Your task to perform on an android device: refresh tabs in the chrome app Image 0: 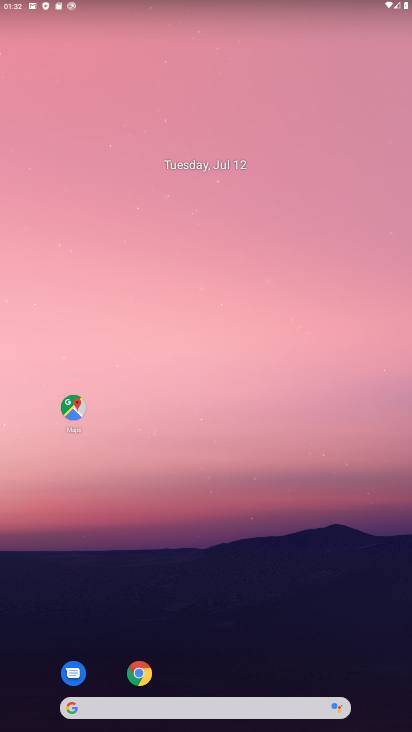
Step 0: click (152, 669)
Your task to perform on an android device: refresh tabs in the chrome app Image 1: 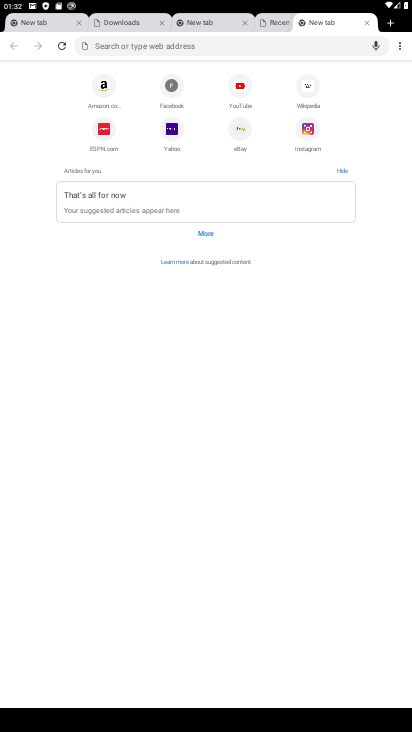
Step 1: click (401, 45)
Your task to perform on an android device: refresh tabs in the chrome app Image 2: 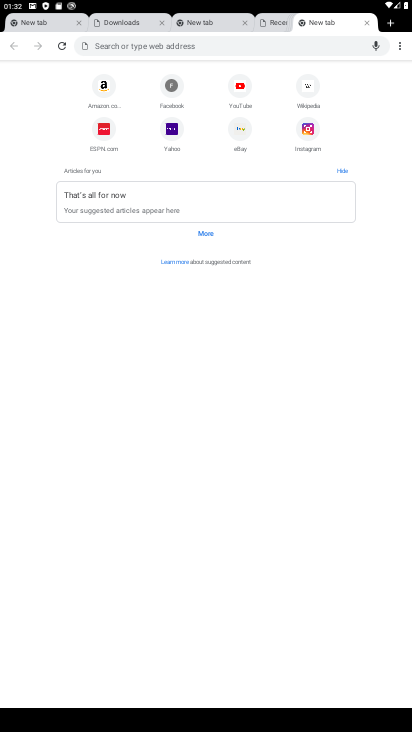
Step 2: click (61, 39)
Your task to perform on an android device: refresh tabs in the chrome app Image 3: 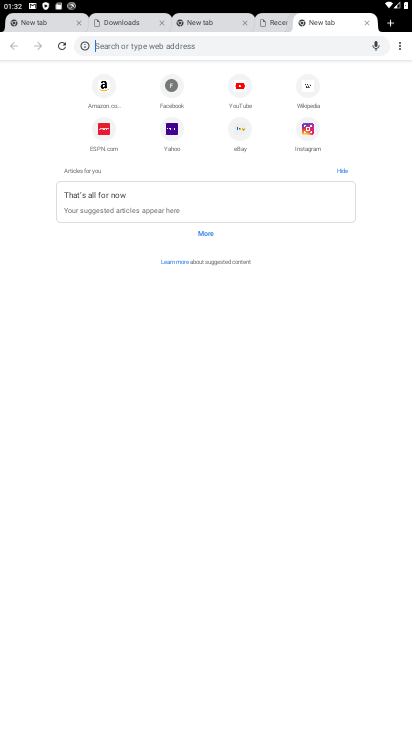
Step 3: click (60, 44)
Your task to perform on an android device: refresh tabs in the chrome app Image 4: 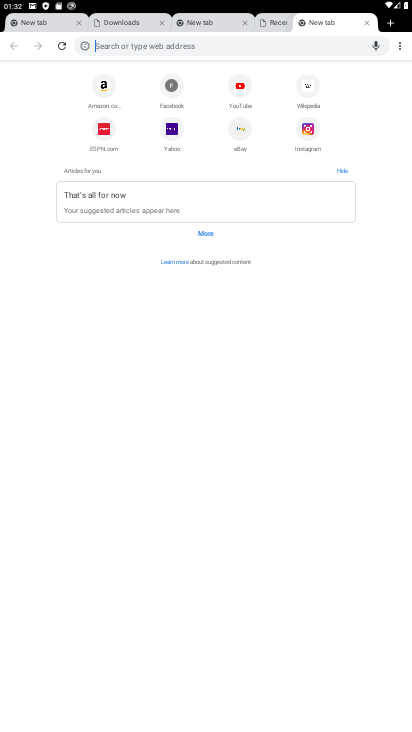
Step 4: click (61, 47)
Your task to perform on an android device: refresh tabs in the chrome app Image 5: 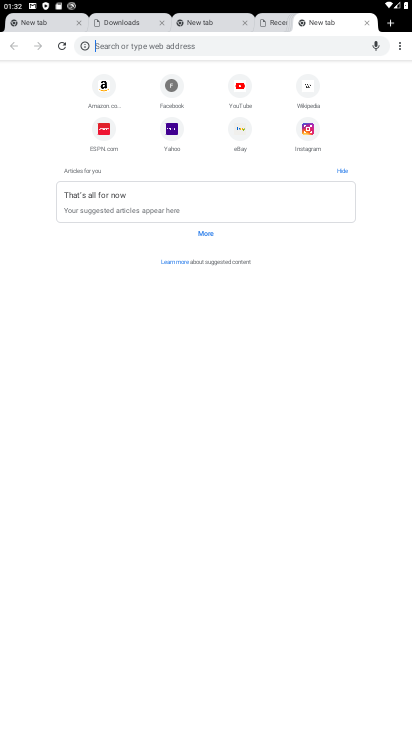
Step 5: task complete